Your task to perform on an android device: make emails show in primary in the gmail app Image 0: 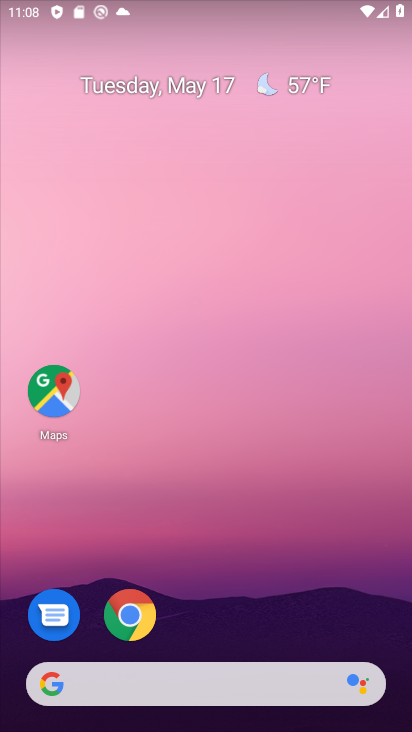
Step 0: drag from (400, 632) to (255, 63)
Your task to perform on an android device: make emails show in primary in the gmail app Image 1: 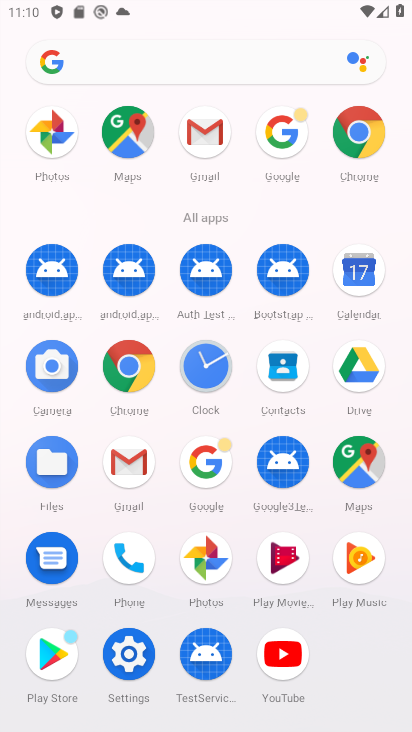
Step 1: click (137, 479)
Your task to perform on an android device: make emails show in primary in the gmail app Image 2: 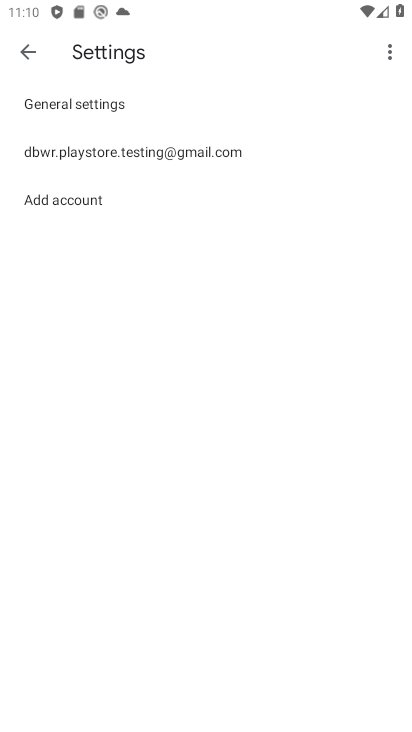
Step 2: press back button
Your task to perform on an android device: make emails show in primary in the gmail app Image 3: 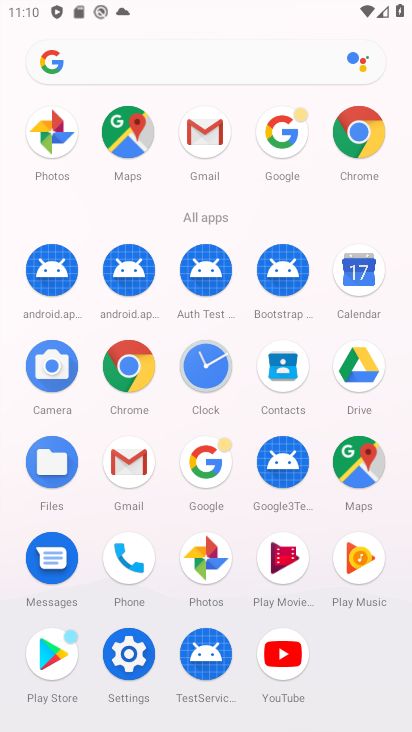
Step 3: click (129, 471)
Your task to perform on an android device: make emails show in primary in the gmail app Image 4: 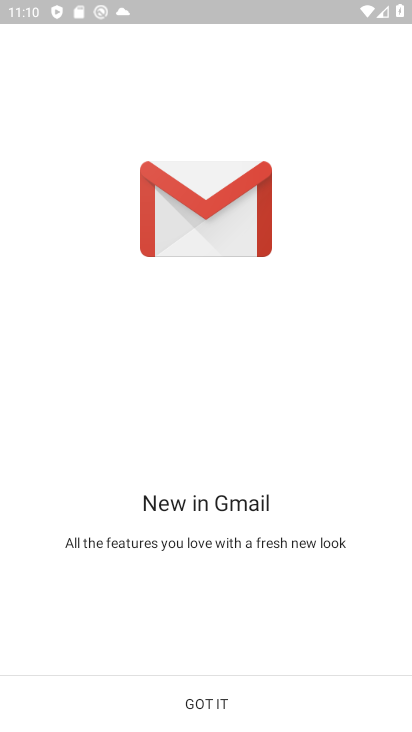
Step 4: click (228, 697)
Your task to perform on an android device: make emails show in primary in the gmail app Image 5: 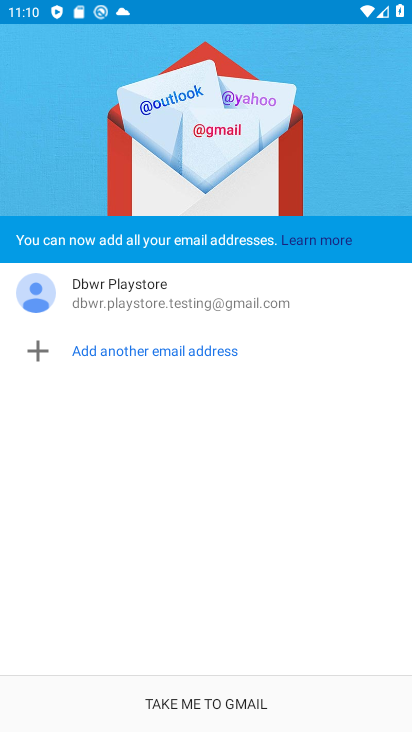
Step 5: click (228, 697)
Your task to perform on an android device: make emails show in primary in the gmail app Image 6: 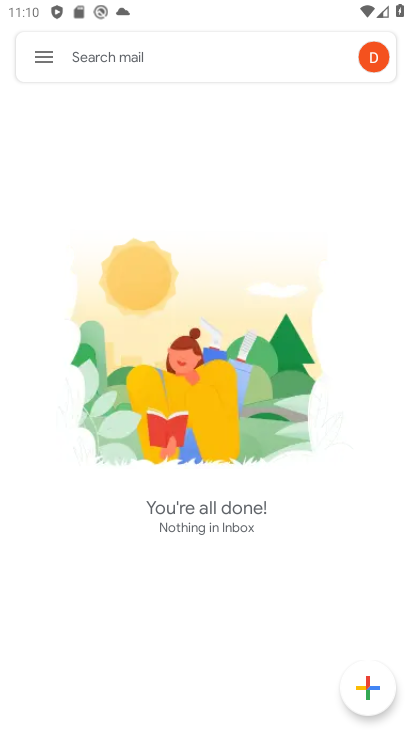
Step 6: task complete